Your task to perform on an android device: Go to Google Image 0: 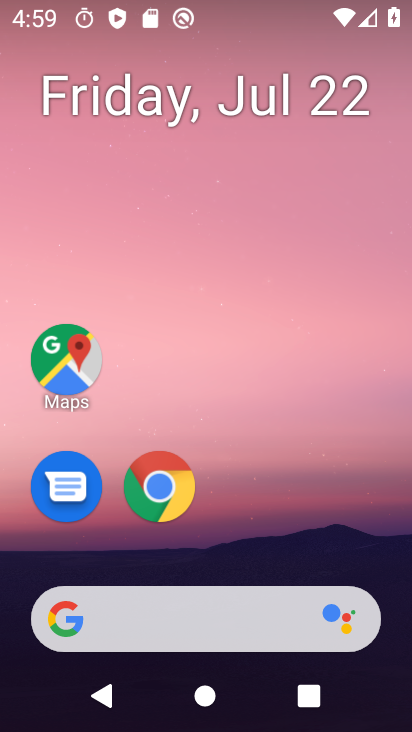
Step 0: drag from (313, 557) to (251, 122)
Your task to perform on an android device: Go to Google Image 1: 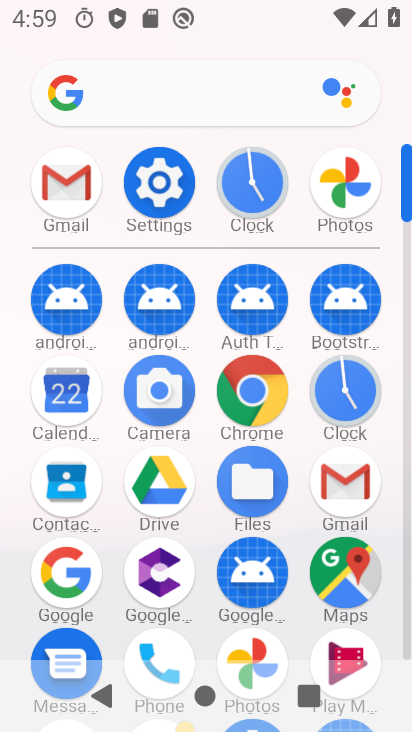
Step 1: click (93, 567)
Your task to perform on an android device: Go to Google Image 2: 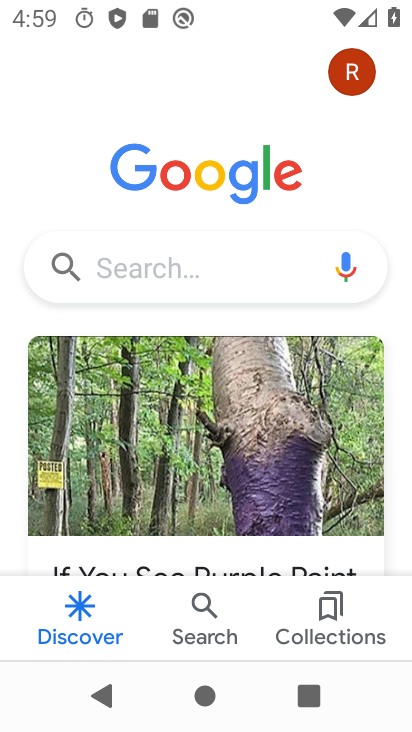
Step 2: task complete